Your task to perform on an android device: Open network settings Image 0: 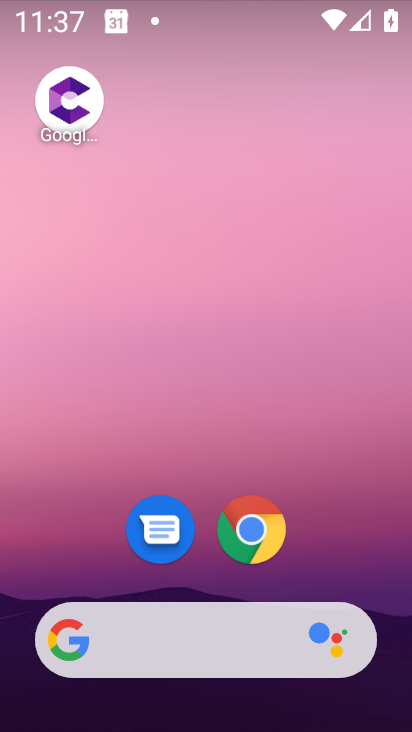
Step 0: drag from (235, 525) to (389, 6)
Your task to perform on an android device: Open network settings Image 1: 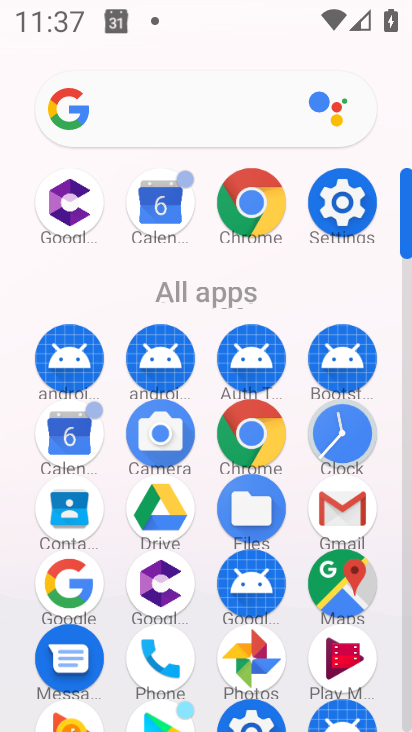
Step 1: click (337, 202)
Your task to perform on an android device: Open network settings Image 2: 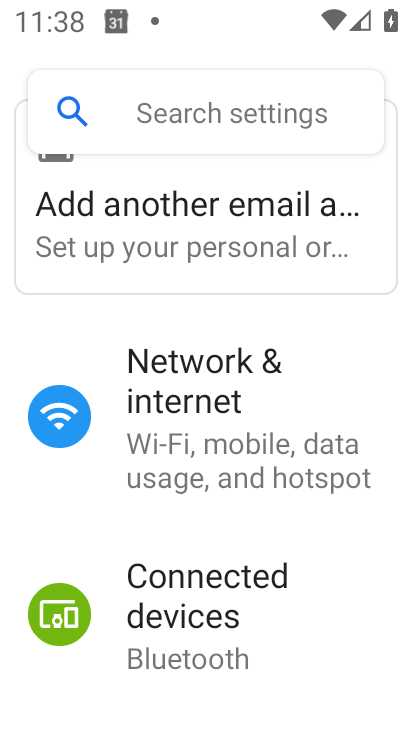
Step 2: click (282, 389)
Your task to perform on an android device: Open network settings Image 3: 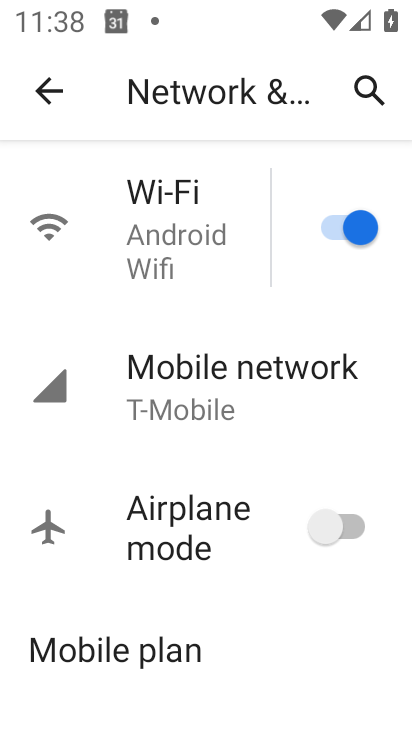
Step 3: task complete